Your task to perform on an android device: change notifications settings Image 0: 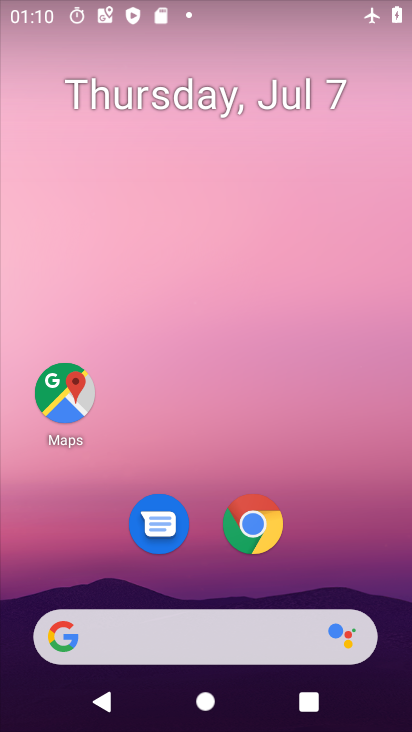
Step 0: drag from (227, 462) to (284, 0)
Your task to perform on an android device: change notifications settings Image 1: 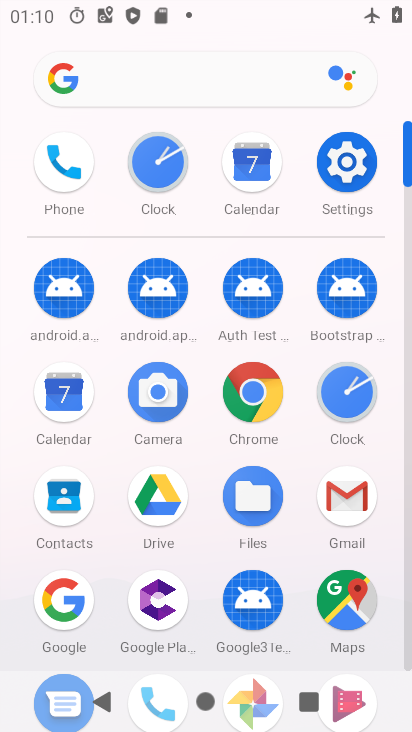
Step 1: click (345, 154)
Your task to perform on an android device: change notifications settings Image 2: 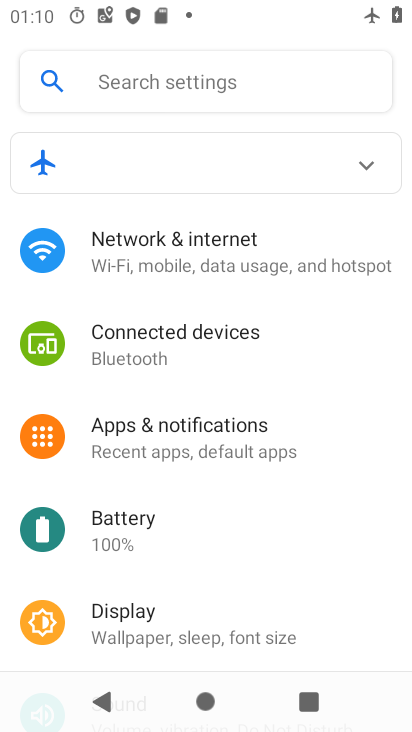
Step 2: click (223, 442)
Your task to perform on an android device: change notifications settings Image 3: 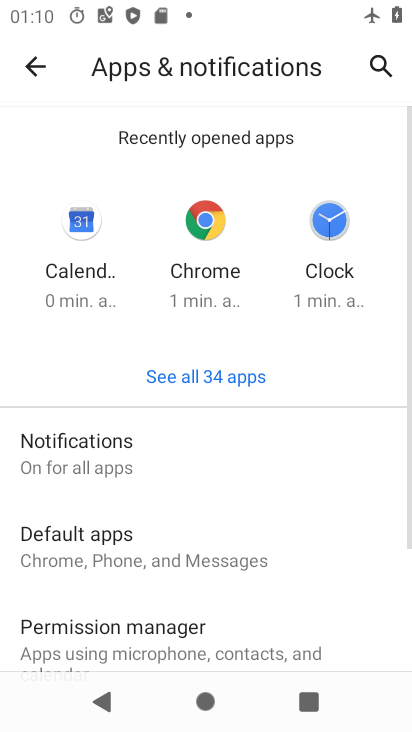
Step 3: click (130, 452)
Your task to perform on an android device: change notifications settings Image 4: 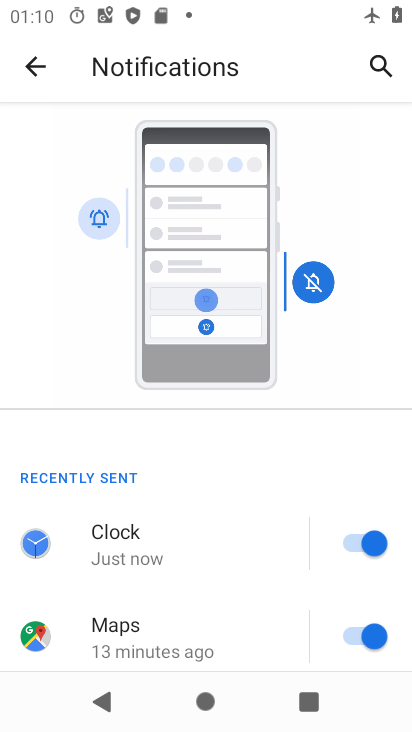
Step 4: drag from (207, 558) to (267, 145)
Your task to perform on an android device: change notifications settings Image 5: 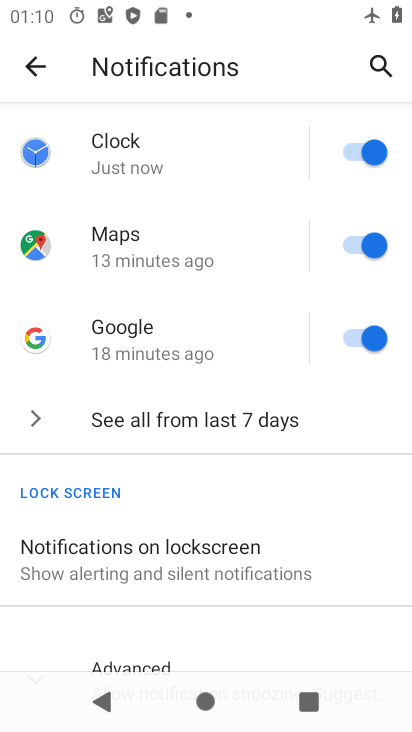
Step 5: click (211, 415)
Your task to perform on an android device: change notifications settings Image 6: 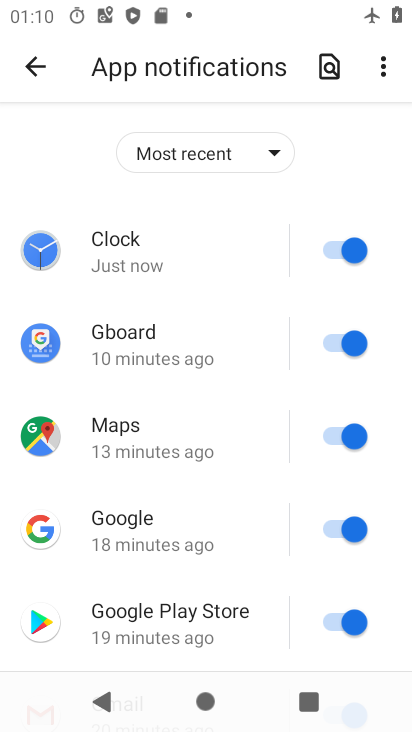
Step 6: click (343, 256)
Your task to perform on an android device: change notifications settings Image 7: 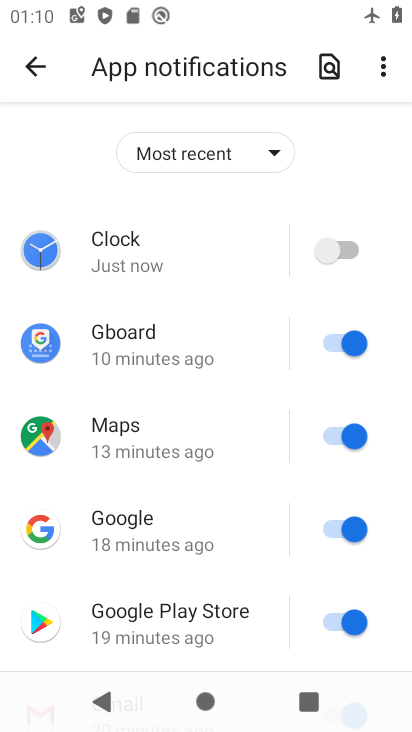
Step 7: click (348, 339)
Your task to perform on an android device: change notifications settings Image 8: 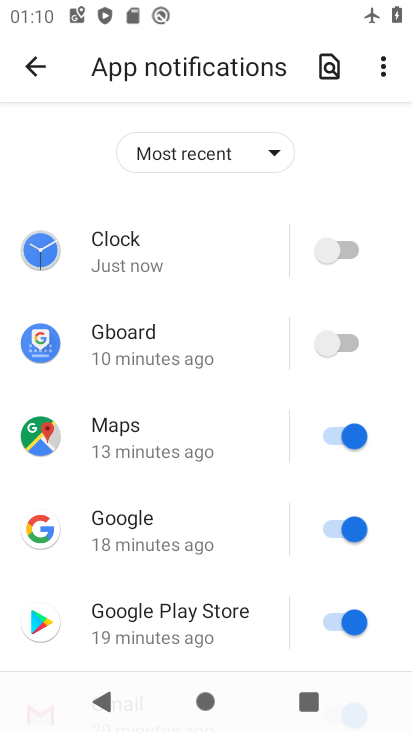
Step 8: click (345, 442)
Your task to perform on an android device: change notifications settings Image 9: 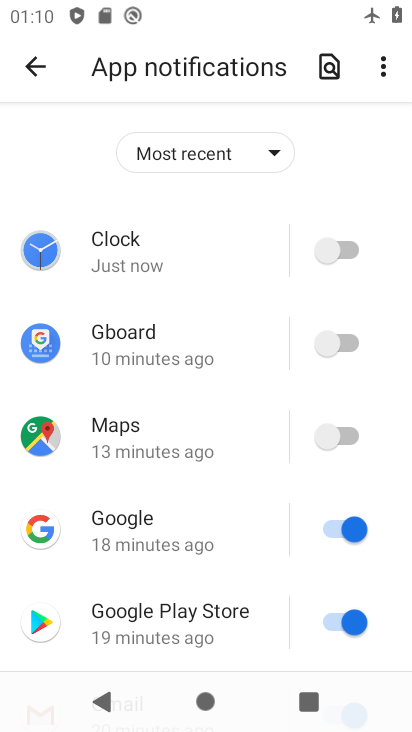
Step 9: click (340, 530)
Your task to perform on an android device: change notifications settings Image 10: 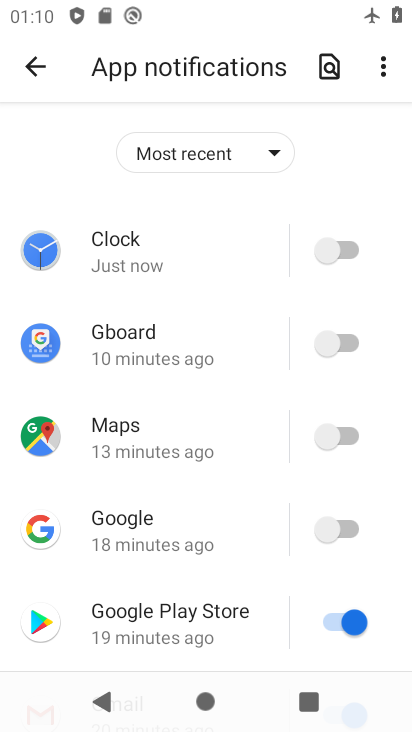
Step 10: click (341, 622)
Your task to perform on an android device: change notifications settings Image 11: 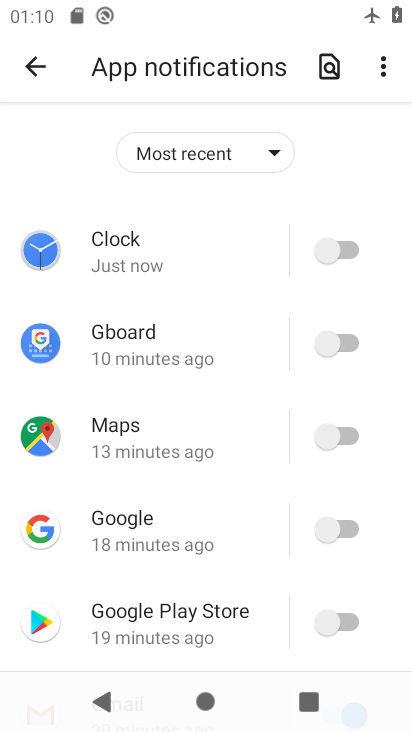
Step 11: drag from (223, 548) to (276, 89)
Your task to perform on an android device: change notifications settings Image 12: 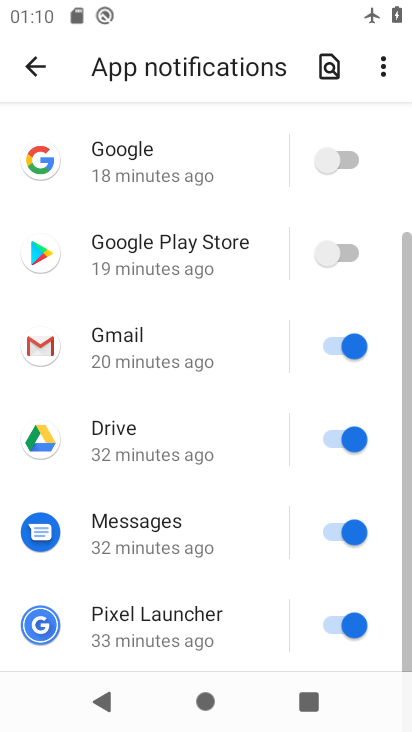
Step 12: drag from (239, 325) to (238, 135)
Your task to perform on an android device: change notifications settings Image 13: 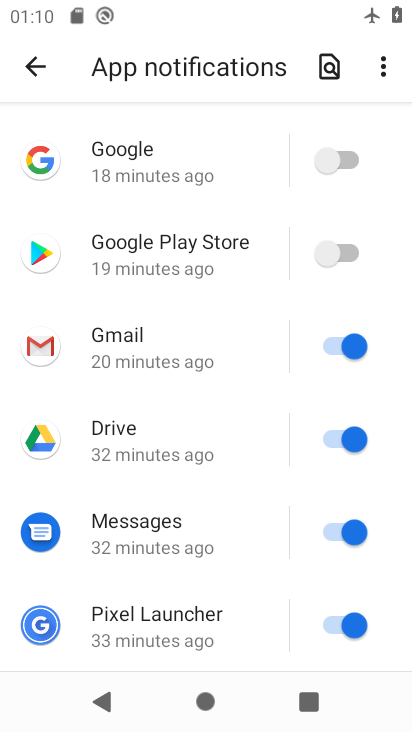
Step 13: click (339, 343)
Your task to perform on an android device: change notifications settings Image 14: 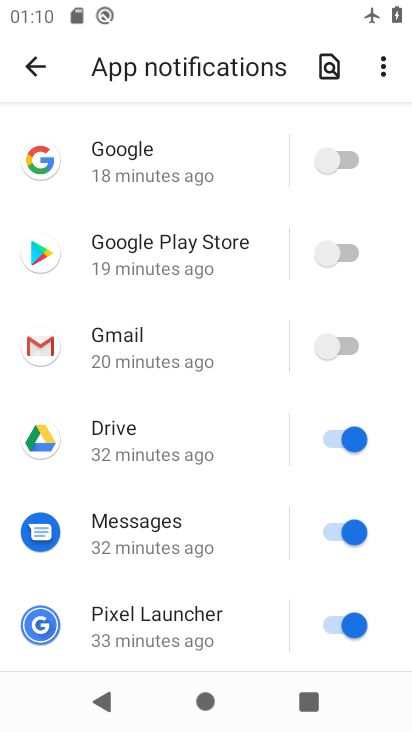
Step 14: click (340, 435)
Your task to perform on an android device: change notifications settings Image 15: 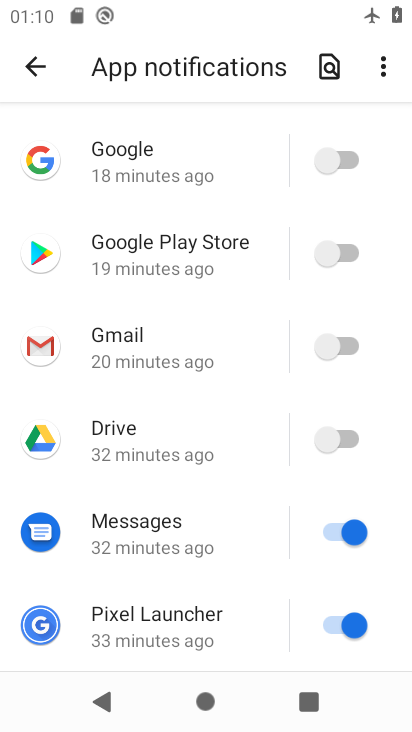
Step 15: click (350, 540)
Your task to perform on an android device: change notifications settings Image 16: 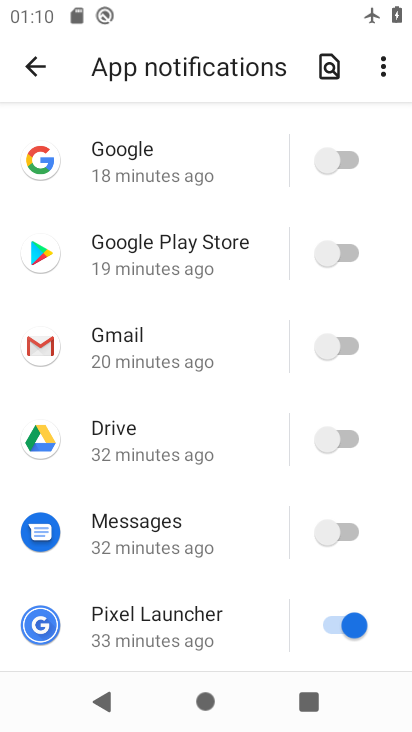
Step 16: click (355, 620)
Your task to perform on an android device: change notifications settings Image 17: 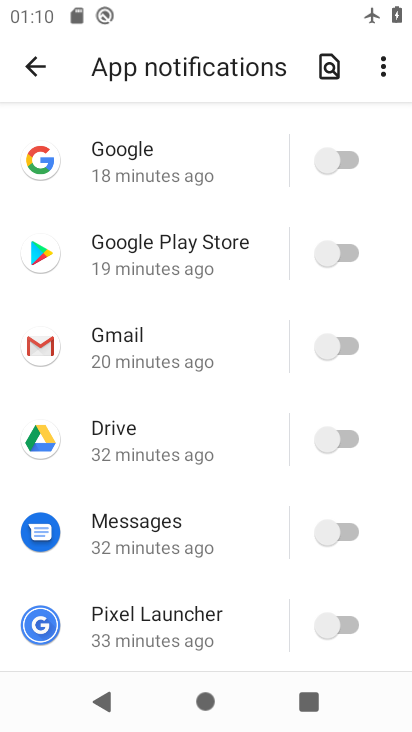
Step 17: task complete